Your task to perform on an android device: Go to Yahoo.com Image 0: 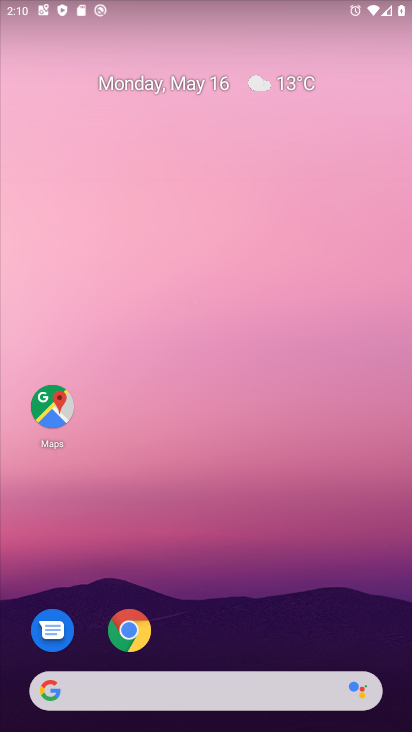
Step 0: click (124, 629)
Your task to perform on an android device: Go to Yahoo.com Image 1: 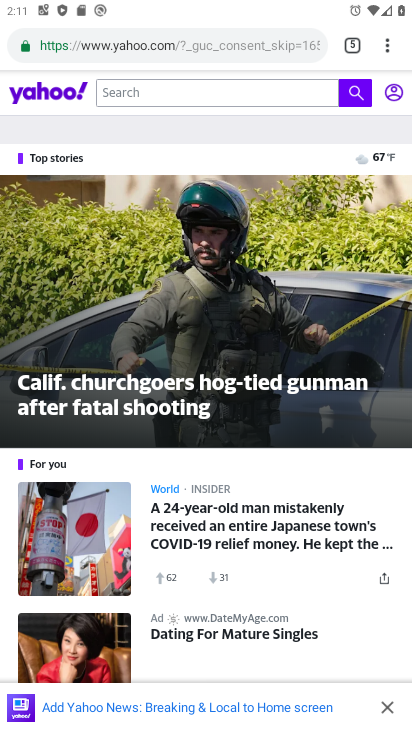
Step 1: task complete